Your task to perform on an android device: Find coffee shops on Maps Image 0: 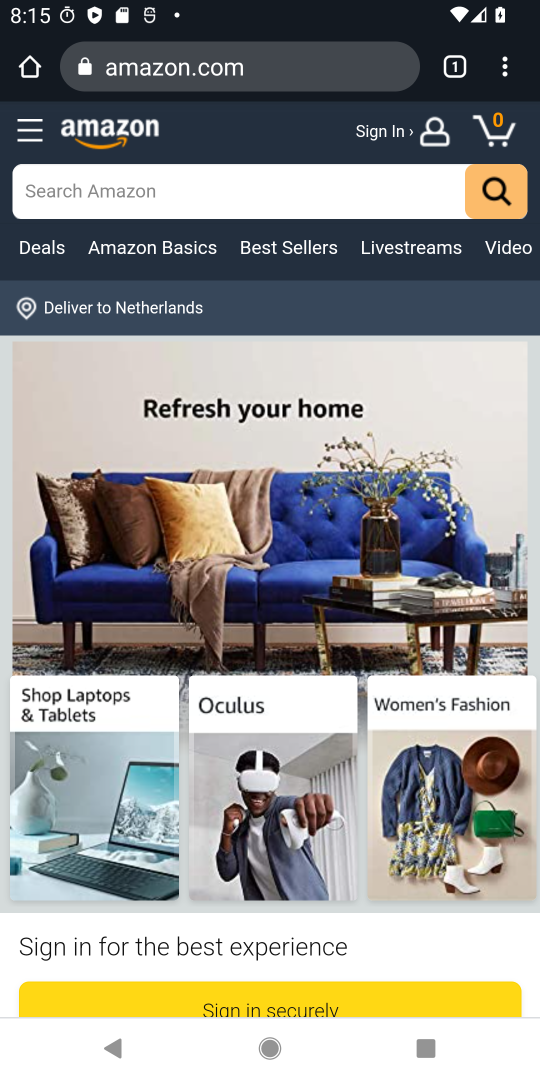
Step 0: press back button
Your task to perform on an android device: Find coffee shops on Maps Image 1: 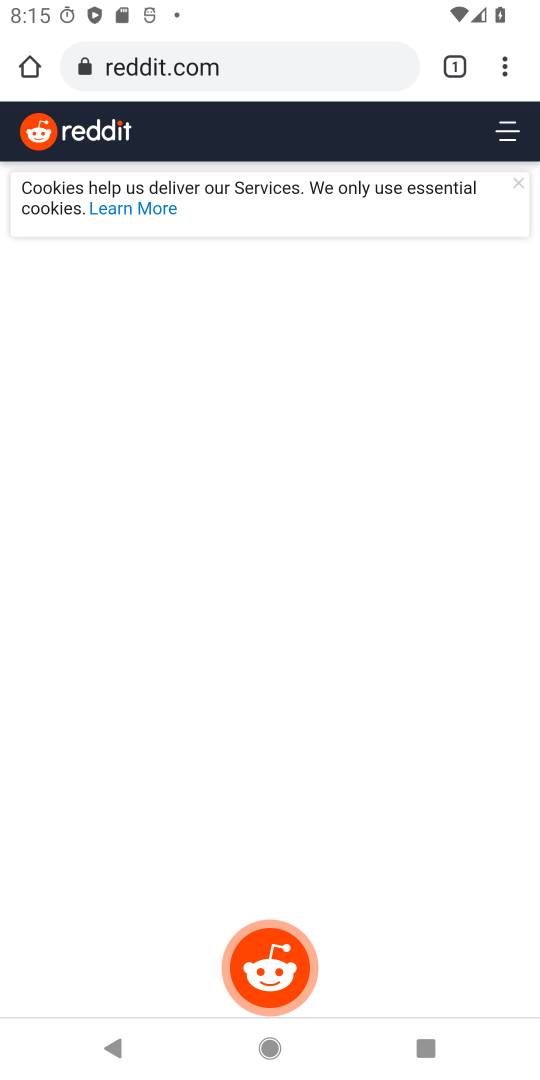
Step 1: press back button
Your task to perform on an android device: Find coffee shops on Maps Image 2: 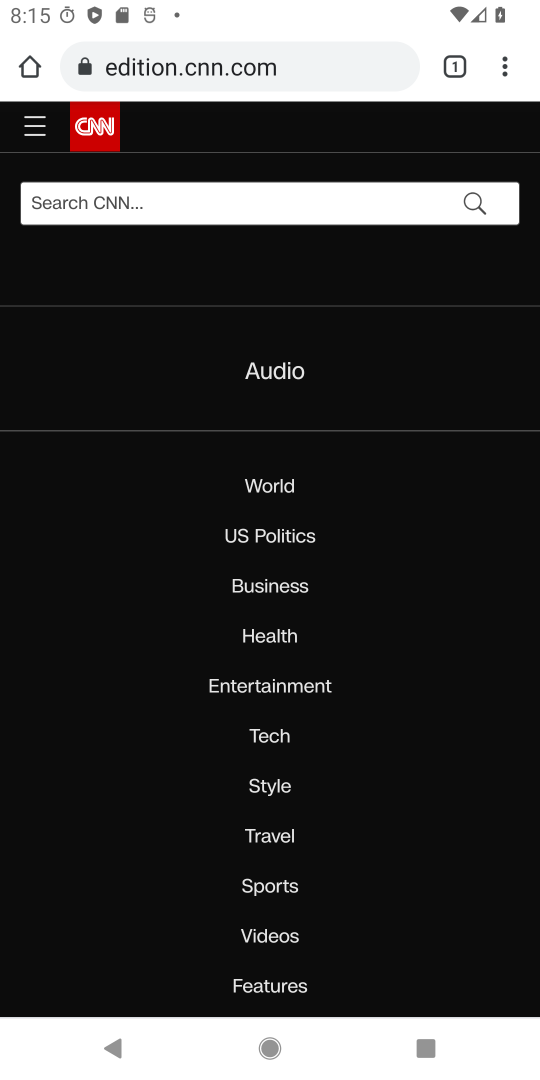
Step 2: press back button
Your task to perform on an android device: Find coffee shops on Maps Image 3: 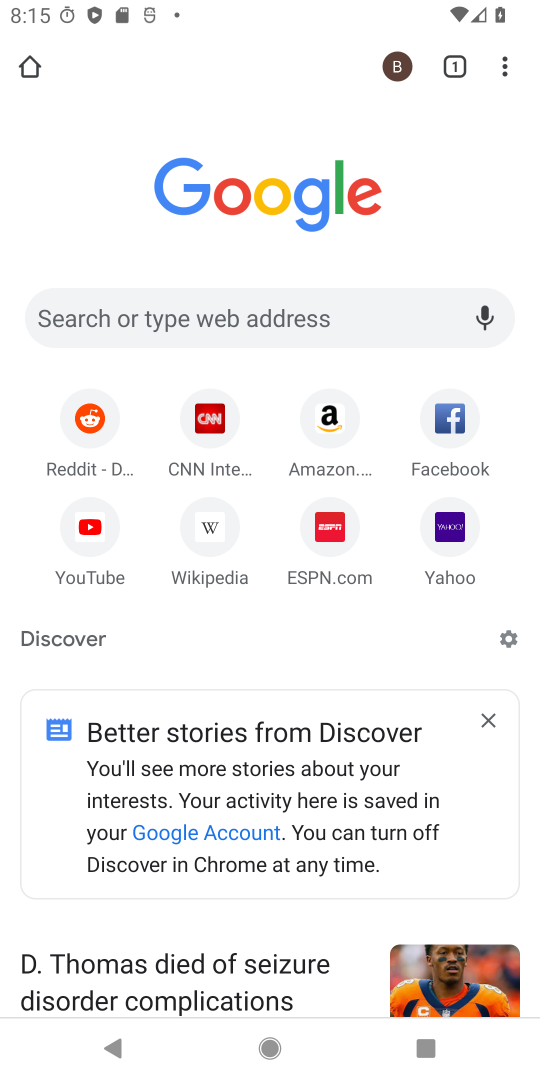
Step 3: press home button
Your task to perform on an android device: Find coffee shops on Maps Image 4: 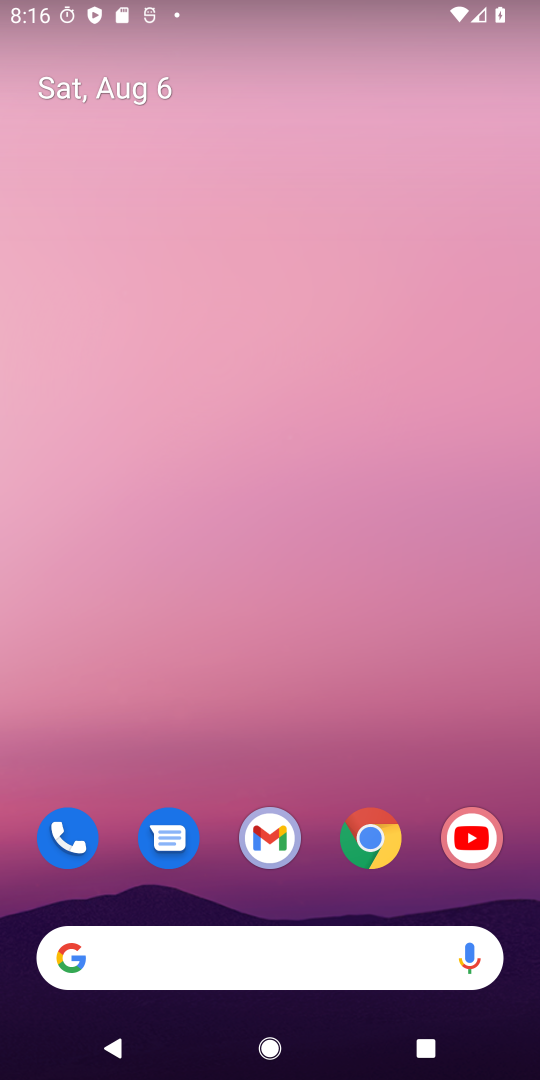
Step 4: drag from (304, 484) to (450, 37)
Your task to perform on an android device: Find coffee shops on Maps Image 5: 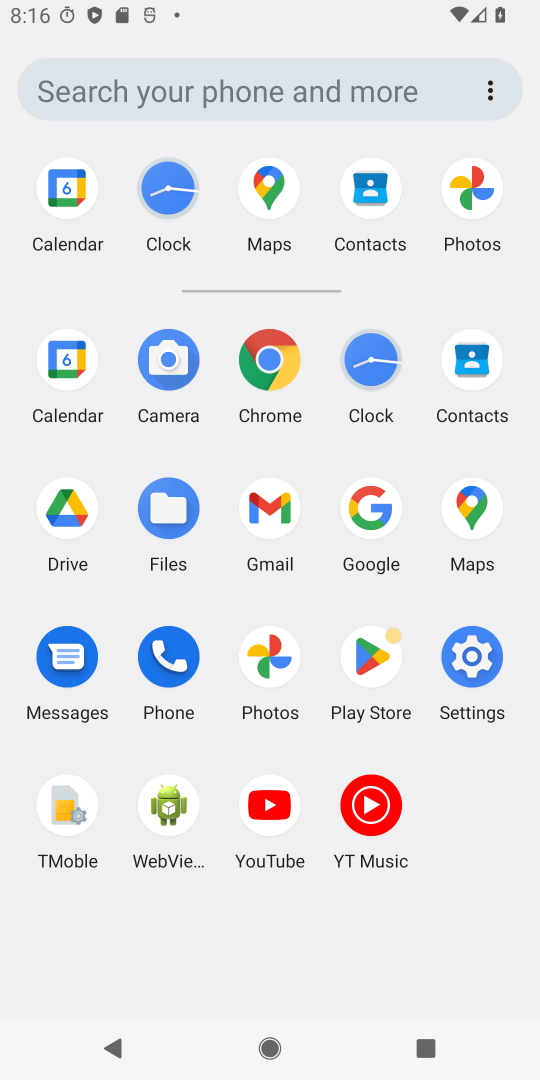
Step 5: click (482, 496)
Your task to perform on an android device: Find coffee shops on Maps Image 6: 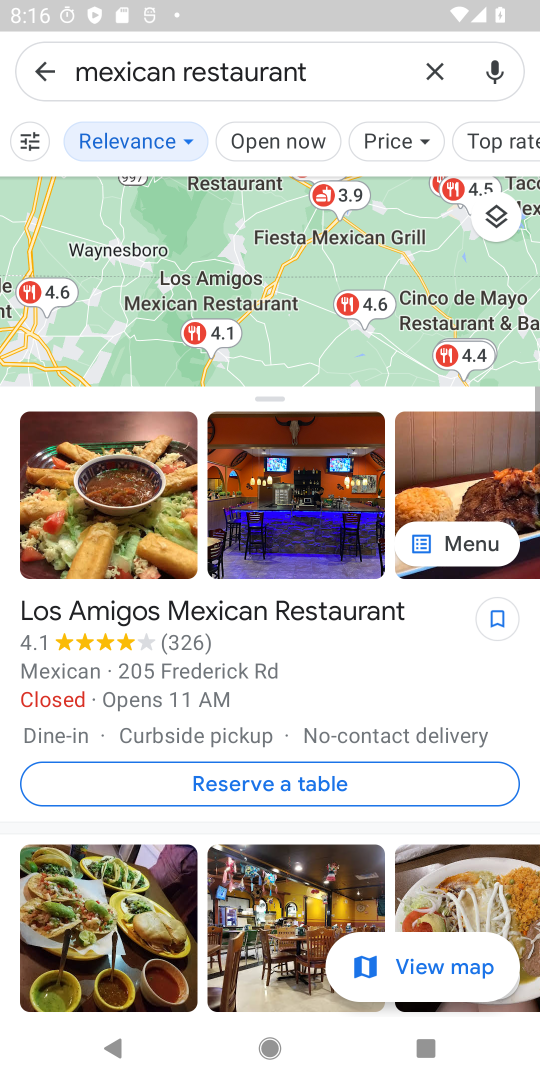
Step 6: click (432, 64)
Your task to perform on an android device: Find coffee shops on Maps Image 7: 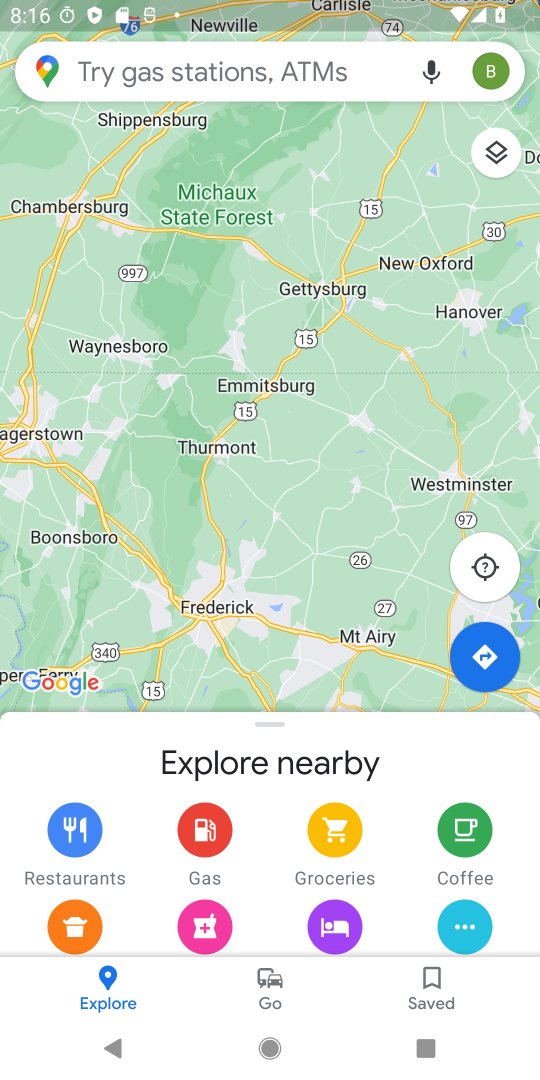
Step 7: click (294, 55)
Your task to perform on an android device: Find coffee shops on Maps Image 8: 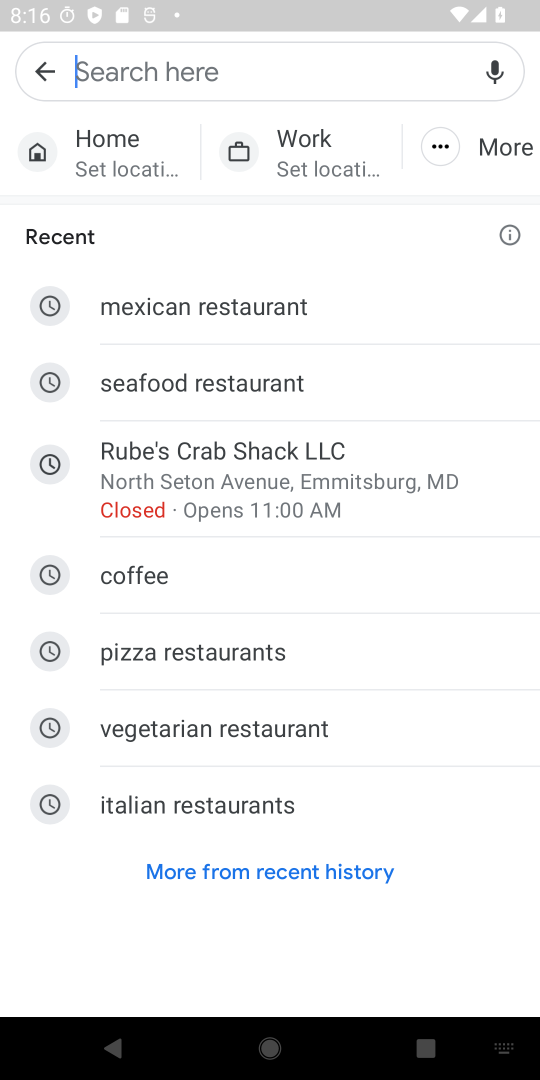
Step 8: type "coffee shops"
Your task to perform on an android device: Find coffee shops on Maps Image 9: 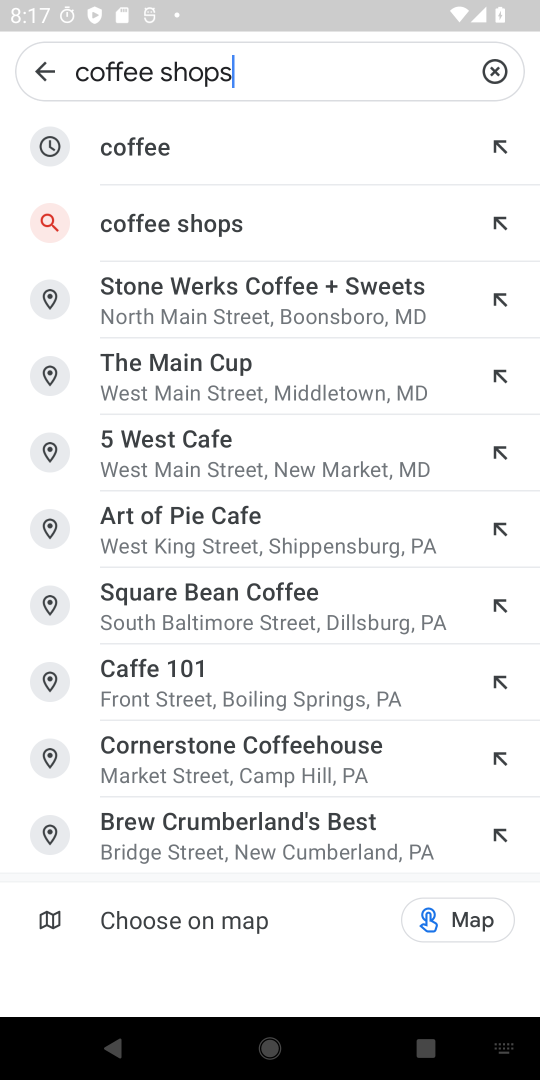
Step 9: click (226, 235)
Your task to perform on an android device: Find coffee shops on Maps Image 10: 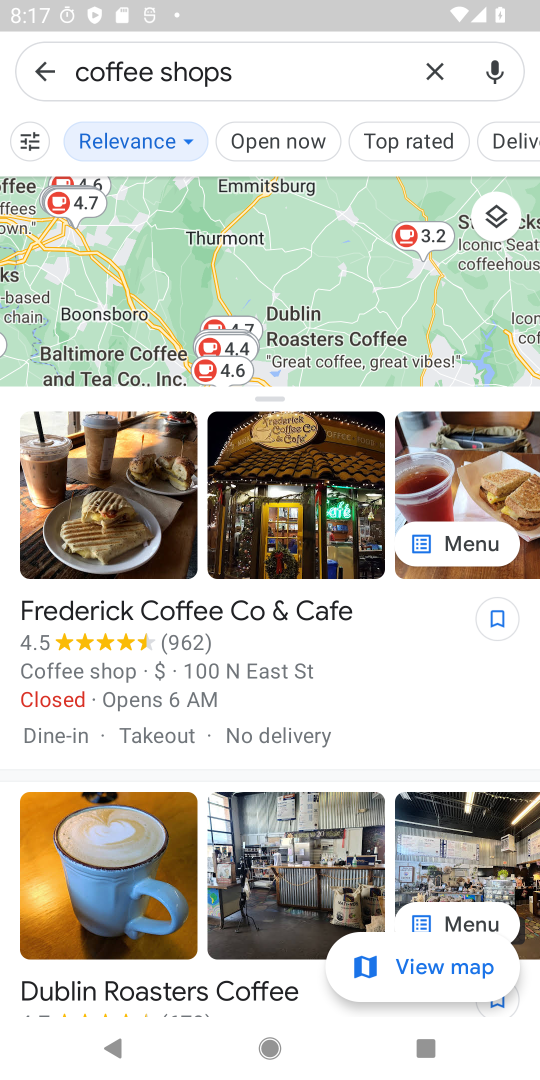
Step 10: task complete